Your task to perform on an android device: Go to Google Image 0: 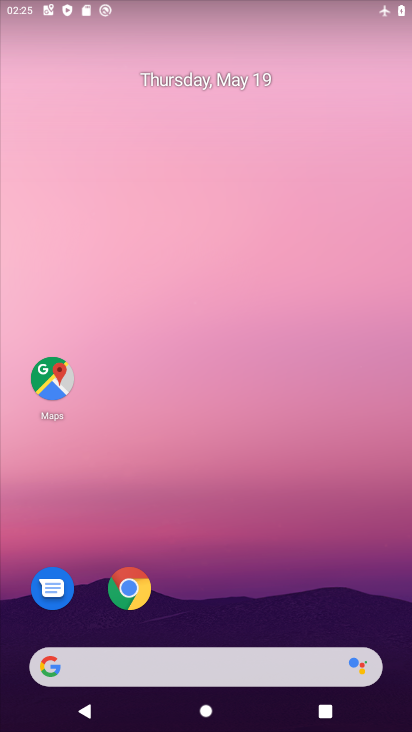
Step 0: drag from (231, 567) to (225, 94)
Your task to perform on an android device: Go to Google Image 1: 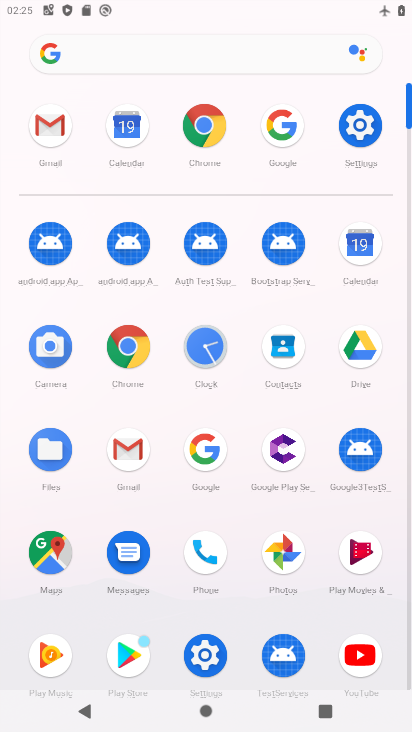
Step 1: click (208, 458)
Your task to perform on an android device: Go to Google Image 2: 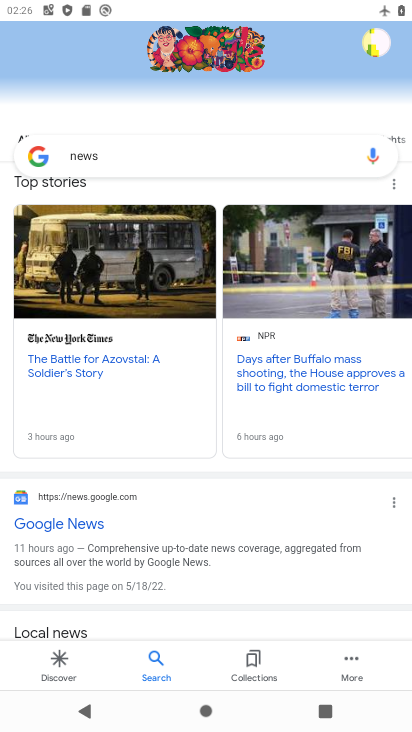
Step 2: task complete